Your task to perform on an android device: Show me the alarms in the clock app Image 0: 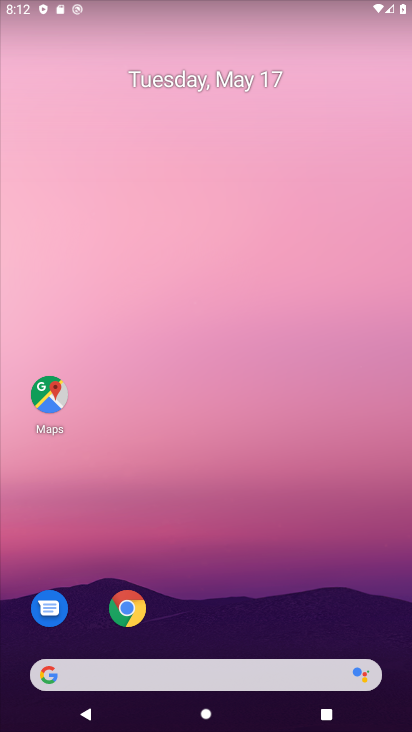
Step 0: drag from (344, 606) to (347, 165)
Your task to perform on an android device: Show me the alarms in the clock app Image 1: 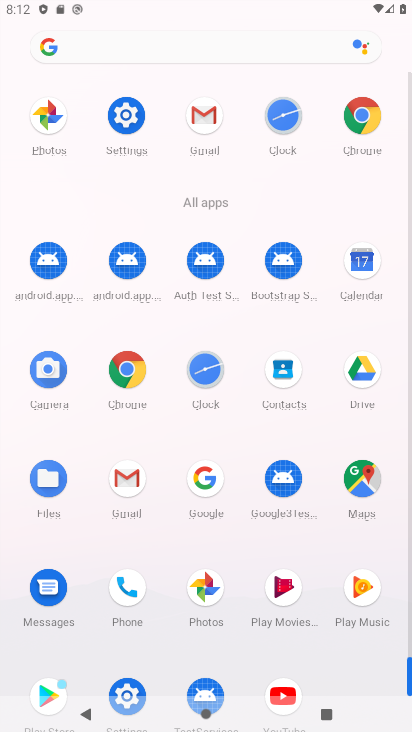
Step 1: click (206, 374)
Your task to perform on an android device: Show me the alarms in the clock app Image 2: 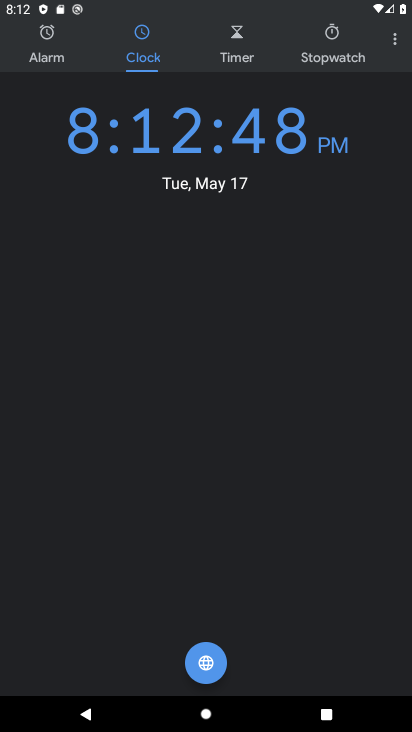
Step 2: click (55, 53)
Your task to perform on an android device: Show me the alarms in the clock app Image 3: 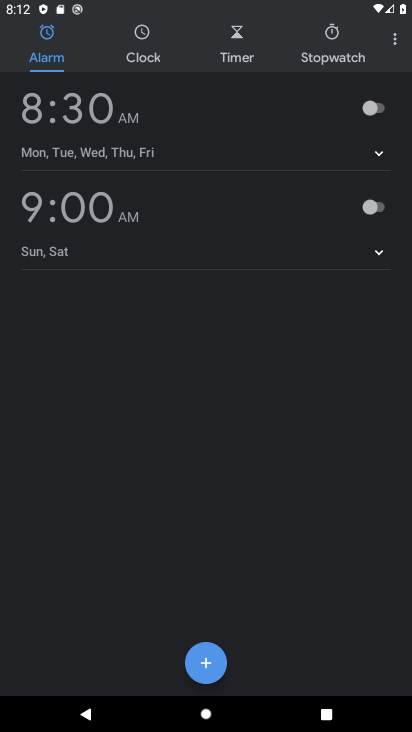
Step 3: task complete